Your task to perform on an android device: Add "bose quietcomfort 35" to the cart on costco.com Image 0: 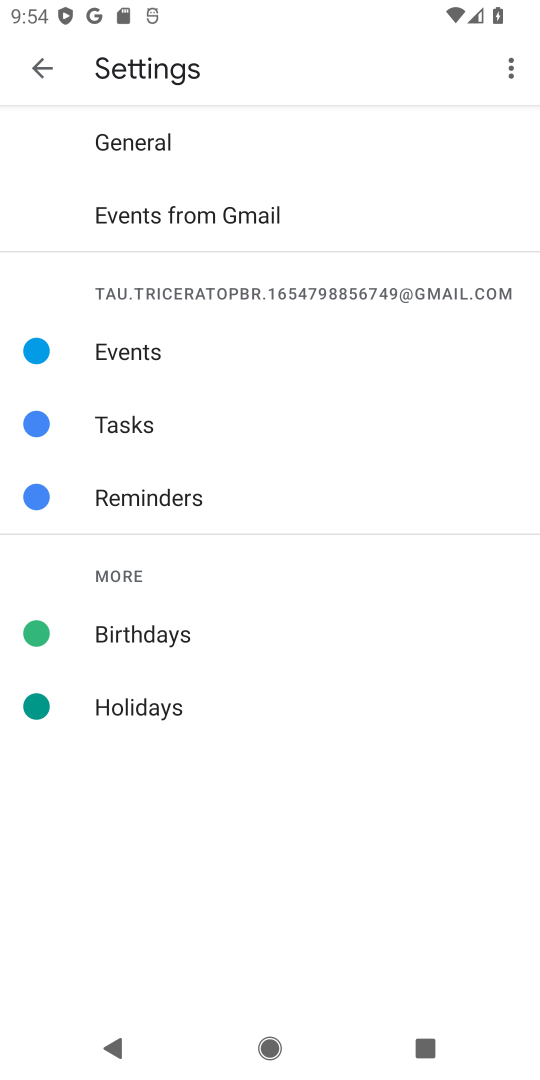
Step 0: press home button
Your task to perform on an android device: Add "bose quietcomfort 35" to the cart on costco.com Image 1: 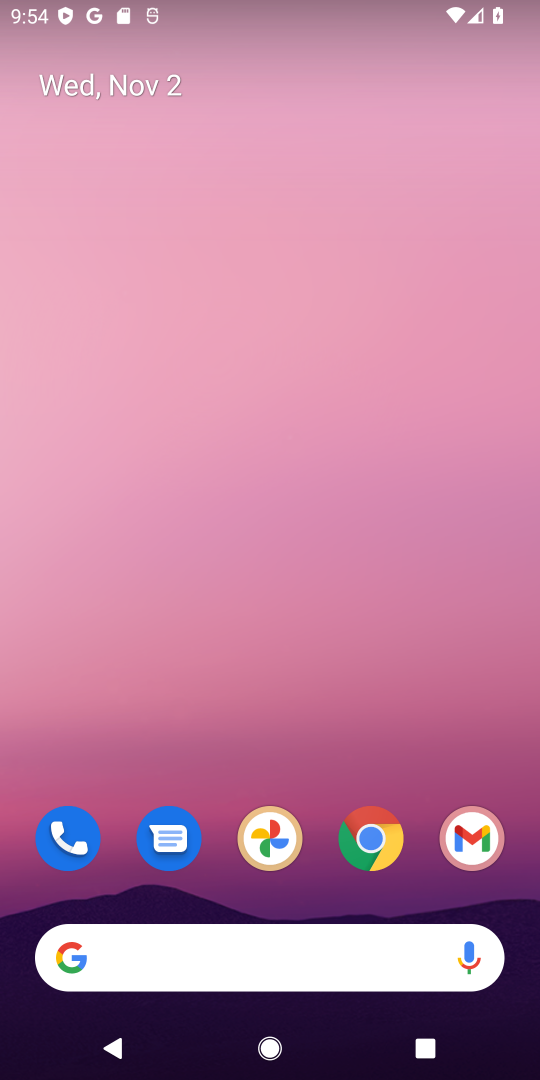
Step 1: click (368, 852)
Your task to perform on an android device: Add "bose quietcomfort 35" to the cart on costco.com Image 2: 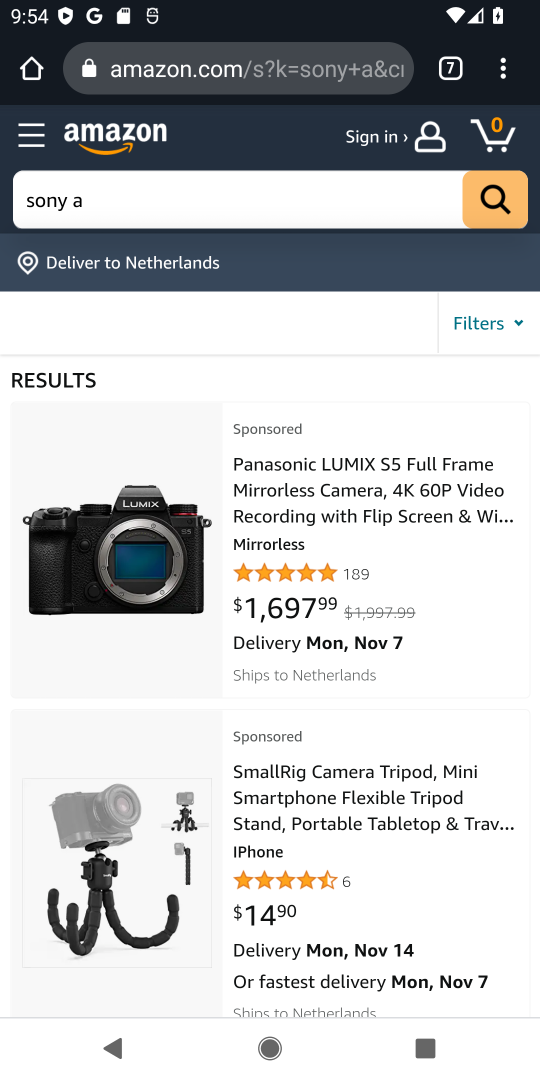
Step 2: click (446, 72)
Your task to perform on an android device: Add "bose quietcomfort 35" to the cart on costco.com Image 3: 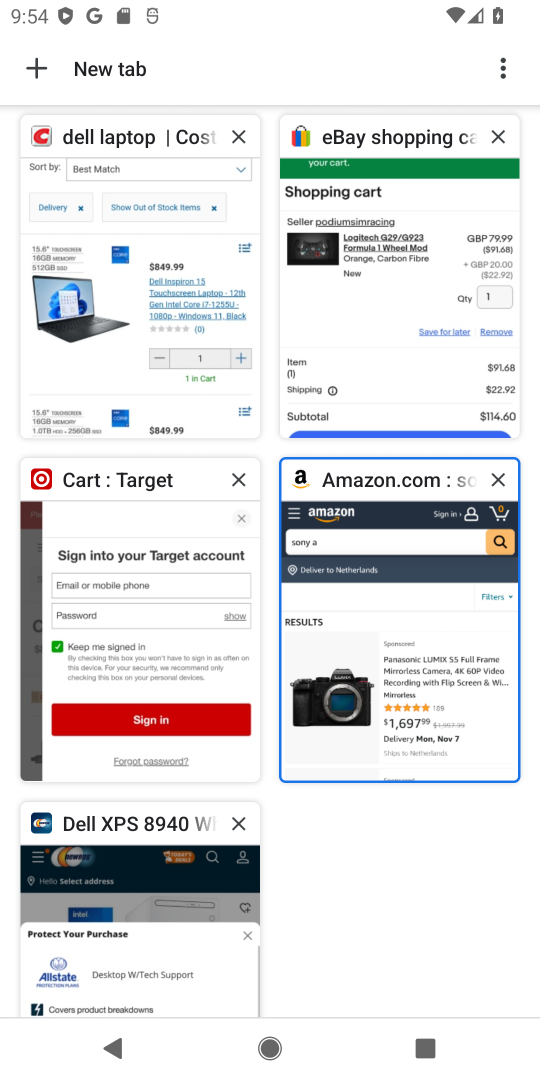
Step 3: click (231, 285)
Your task to perform on an android device: Add "bose quietcomfort 35" to the cart on costco.com Image 4: 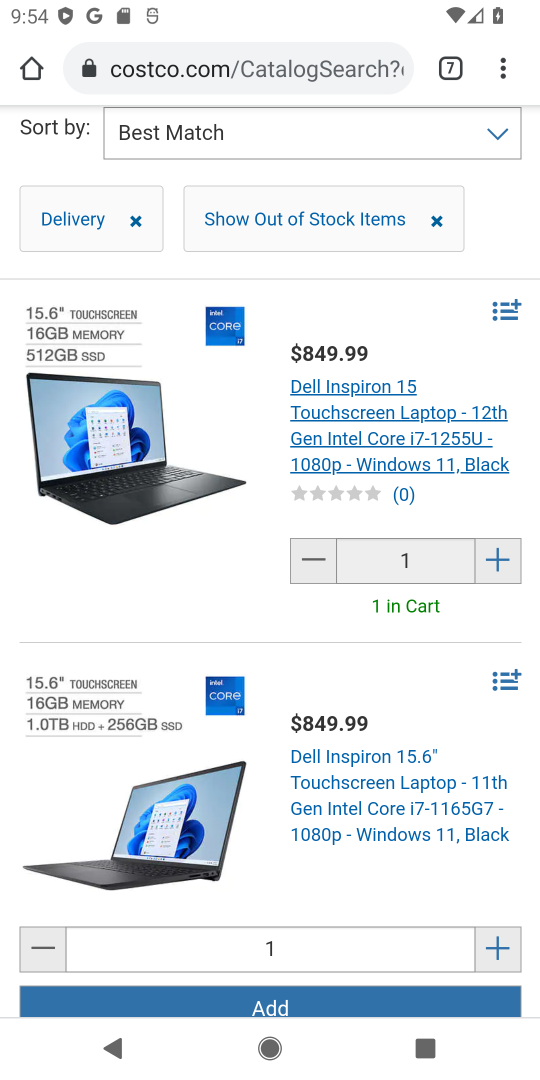
Step 4: drag from (278, 149) to (216, 1041)
Your task to perform on an android device: Add "bose quietcomfort 35" to the cart on costco.com Image 5: 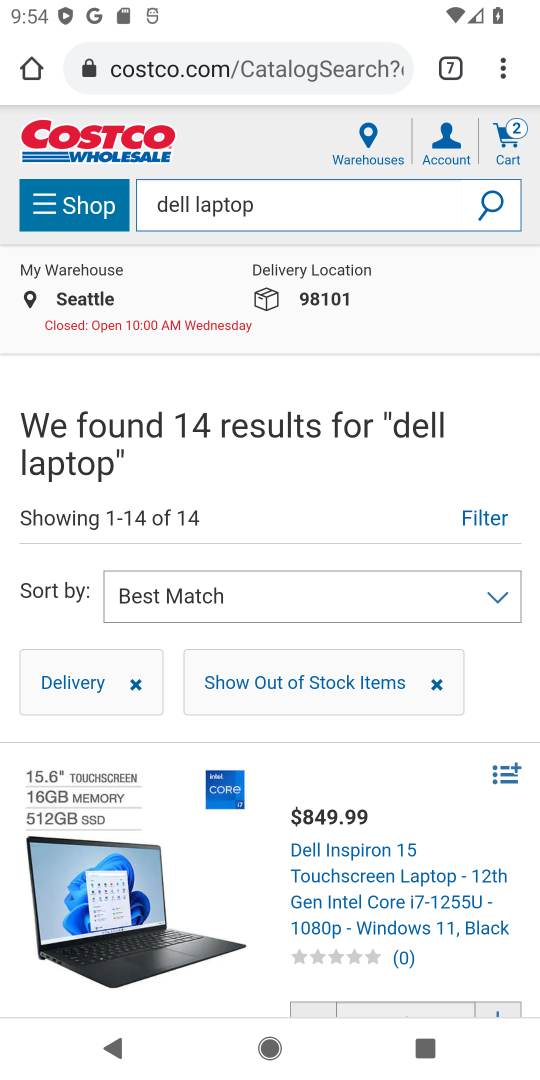
Step 5: click (300, 205)
Your task to perform on an android device: Add "bose quietcomfort 35" to the cart on costco.com Image 6: 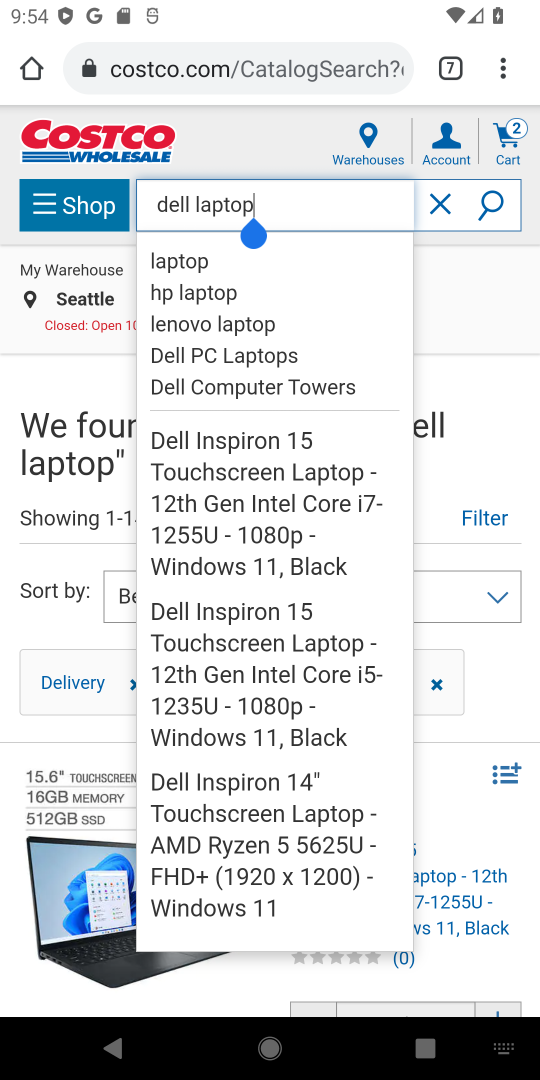
Step 6: click (438, 210)
Your task to perform on an android device: Add "bose quietcomfort 35" to the cart on costco.com Image 7: 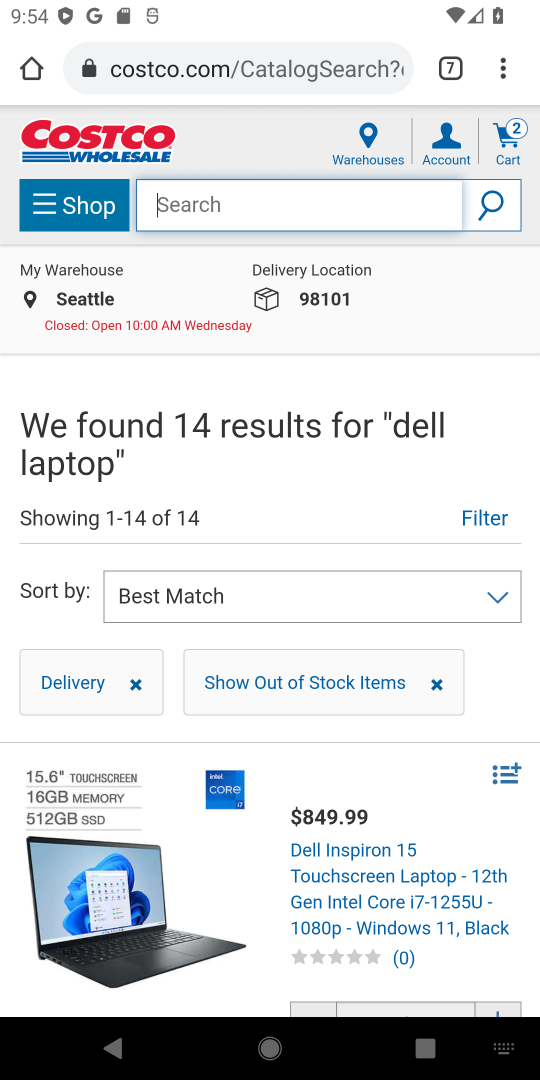
Step 7: type "bose quietcomfort 35"
Your task to perform on an android device: Add "bose quietcomfort 35" to the cart on costco.com Image 8: 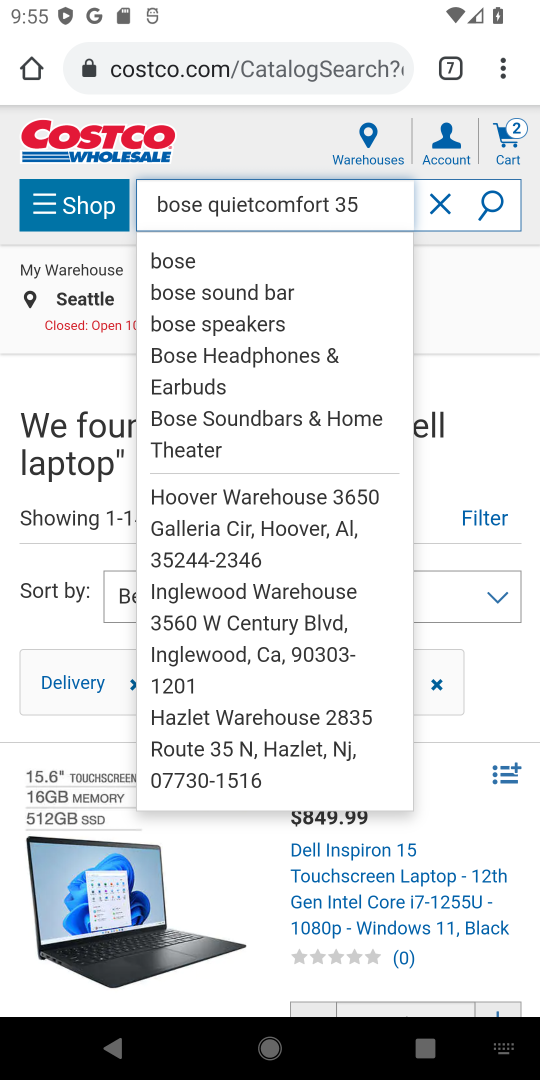
Step 8: click (195, 291)
Your task to perform on an android device: Add "bose quietcomfort 35" to the cart on costco.com Image 9: 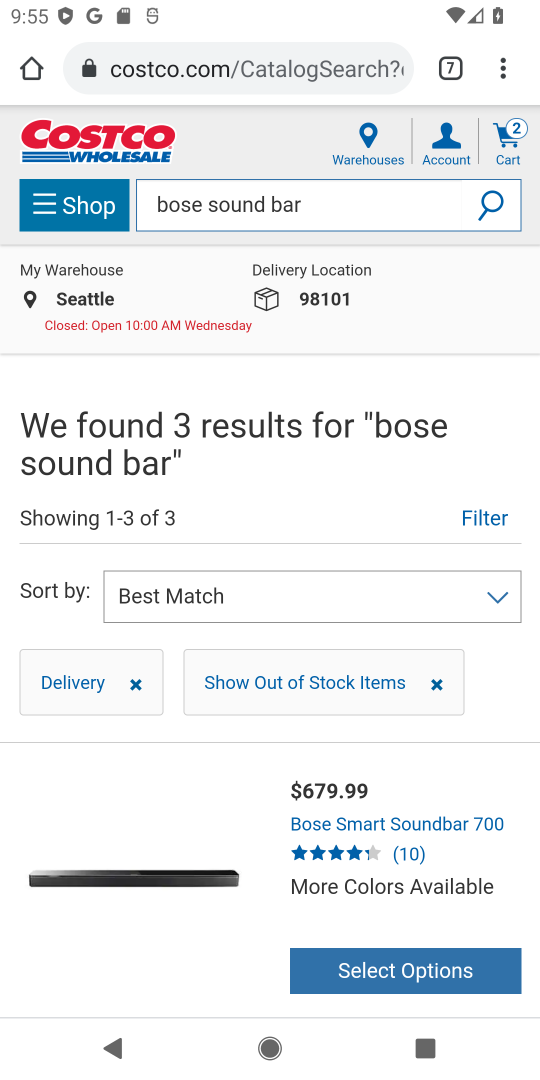
Step 9: click (446, 384)
Your task to perform on an android device: Add "bose quietcomfort 35" to the cart on costco.com Image 10: 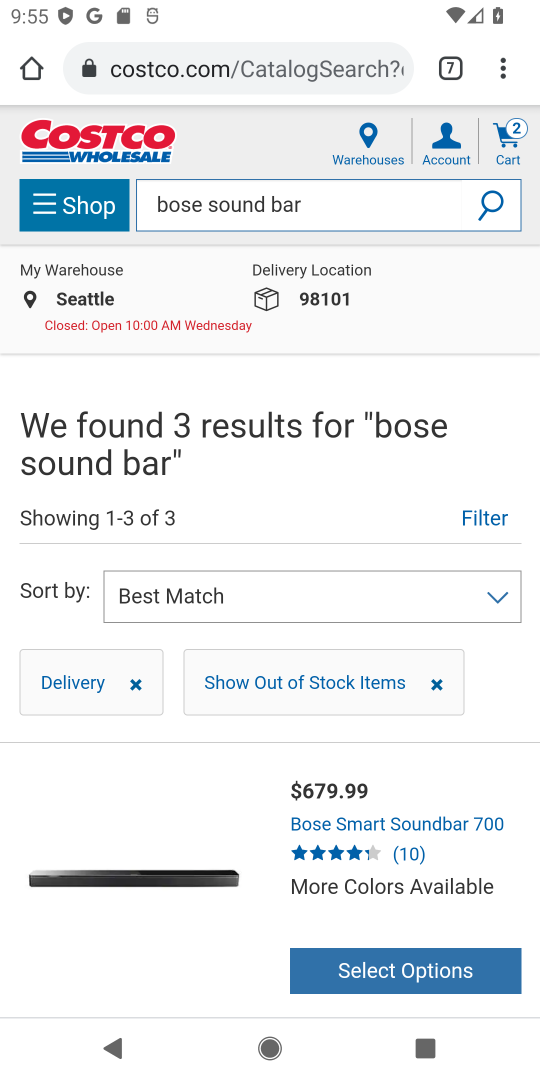
Step 10: drag from (454, 840) to (411, 482)
Your task to perform on an android device: Add "bose quietcomfort 35" to the cart on costco.com Image 11: 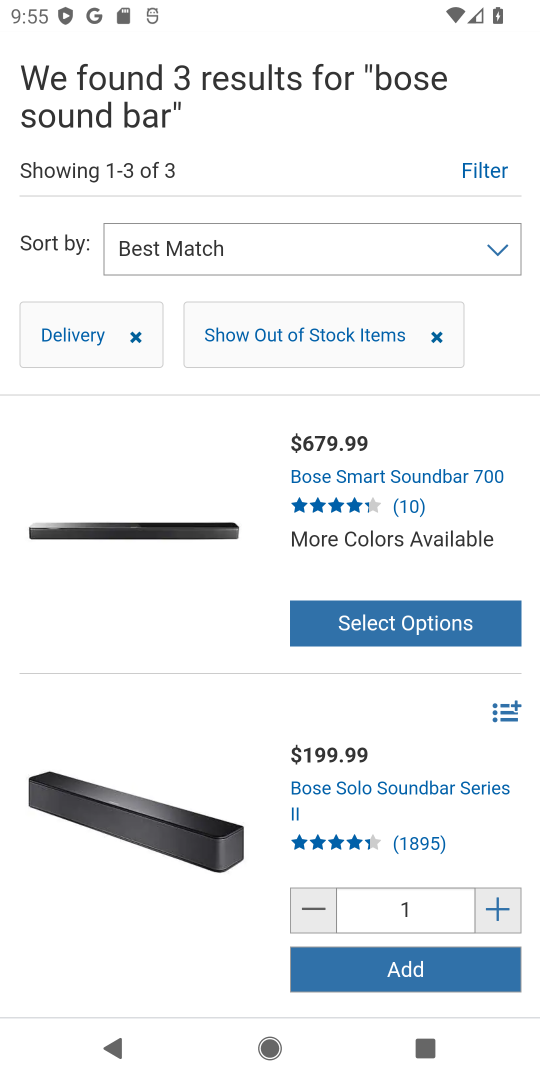
Step 11: click (394, 982)
Your task to perform on an android device: Add "bose quietcomfort 35" to the cart on costco.com Image 12: 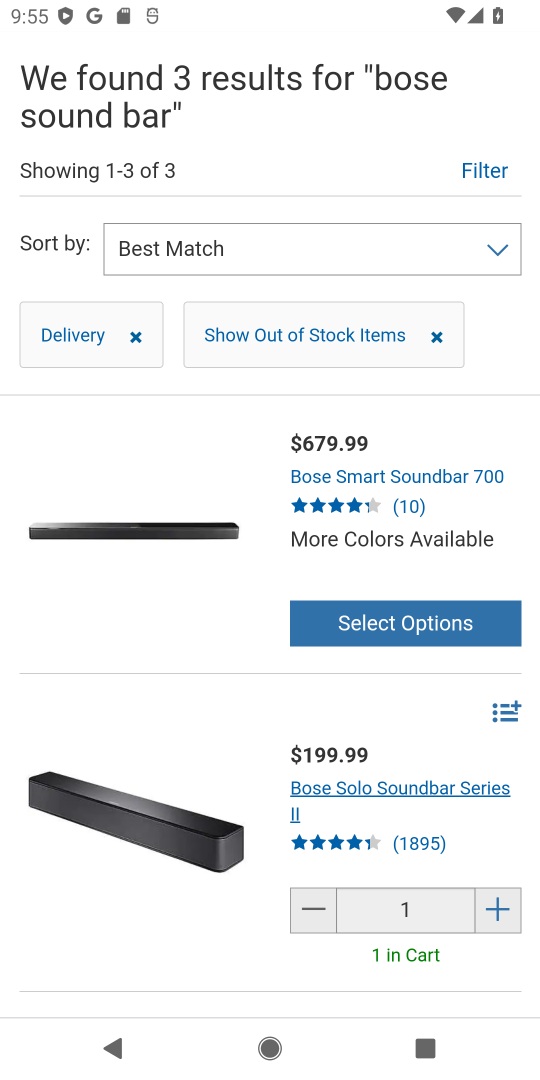
Step 12: task complete